Your task to perform on an android device: Find coffee shops on Maps Image 0: 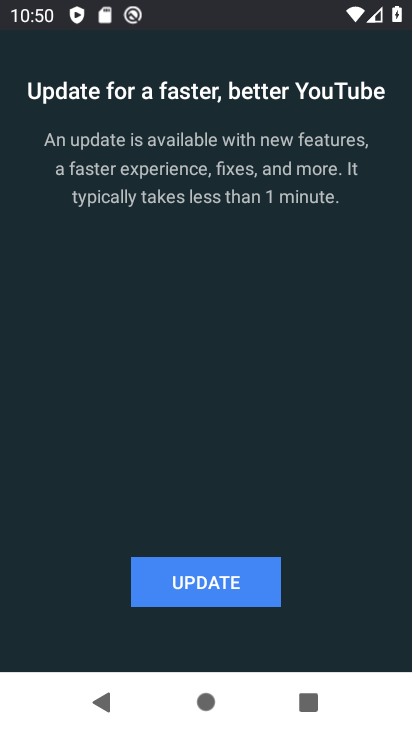
Step 0: press back button
Your task to perform on an android device: Find coffee shops on Maps Image 1: 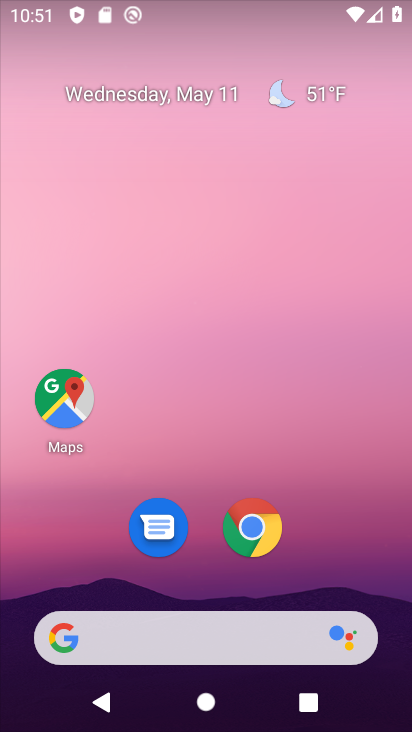
Step 1: drag from (317, 535) to (255, 22)
Your task to perform on an android device: Find coffee shops on Maps Image 2: 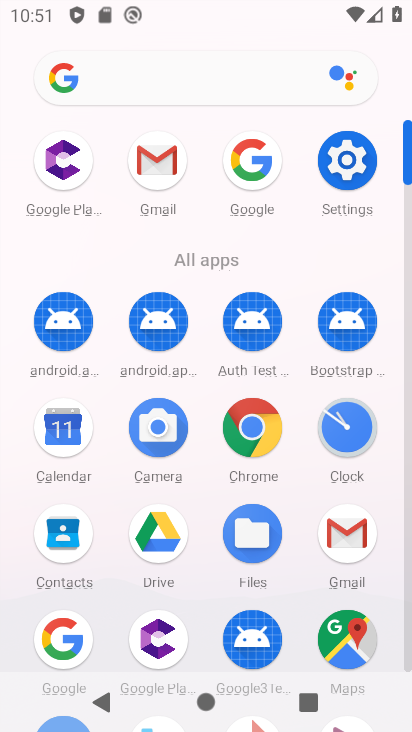
Step 2: click (346, 642)
Your task to perform on an android device: Find coffee shops on Maps Image 3: 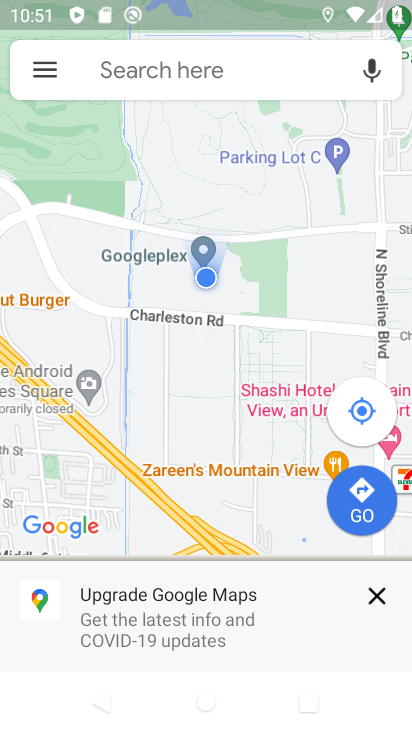
Step 3: click (375, 595)
Your task to perform on an android device: Find coffee shops on Maps Image 4: 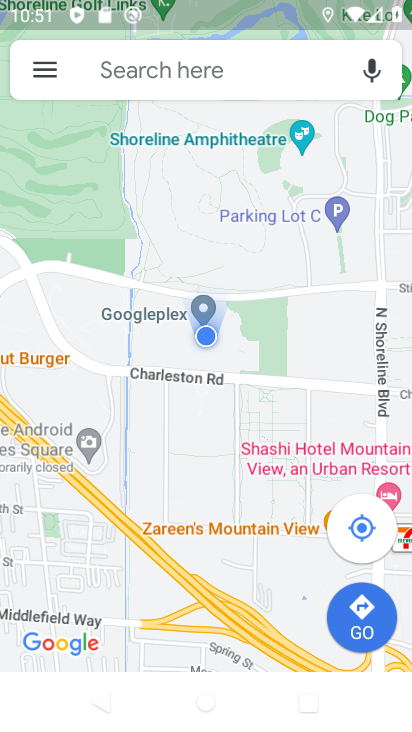
Step 4: click (157, 76)
Your task to perform on an android device: Find coffee shops on Maps Image 5: 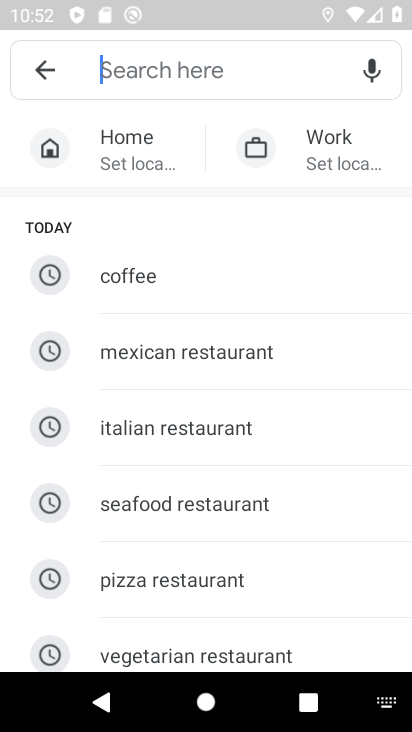
Step 5: type "coffee shops"
Your task to perform on an android device: Find coffee shops on Maps Image 6: 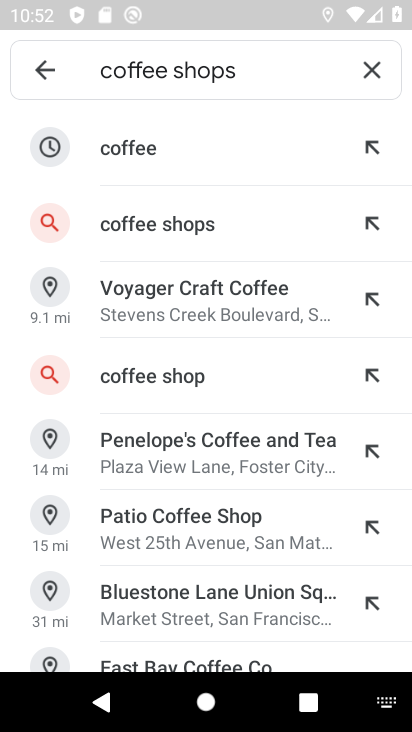
Step 6: click (206, 228)
Your task to perform on an android device: Find coffee shops on Maps Image 7: 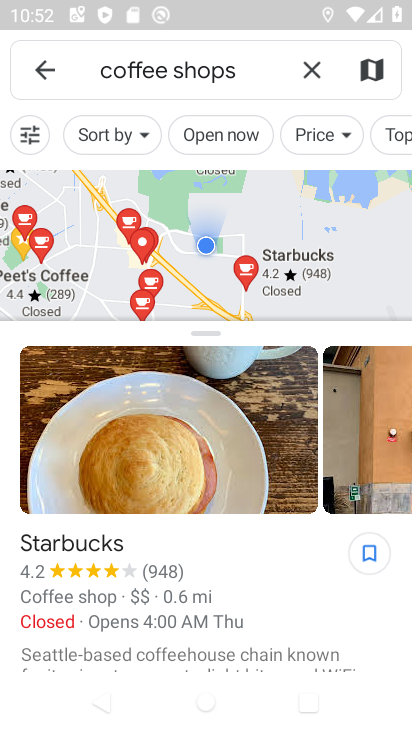
Step 7: task complete